Your task to perform on an android device: Search for Italian restaurants on Maps Image 0: 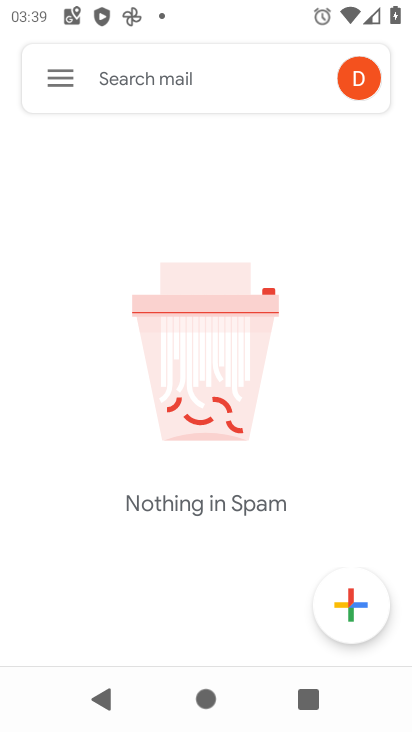
Step 0: press home button
Your task to perform on an android device: Search for Italian restaurants on Maps Image 1: 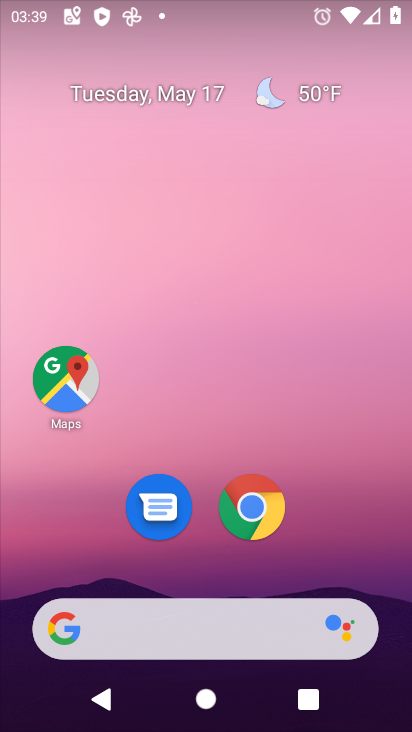
Step 1: click (68, 379)
Your task to perform on an android device: Search for Italian restaurants on Maps Image 2: 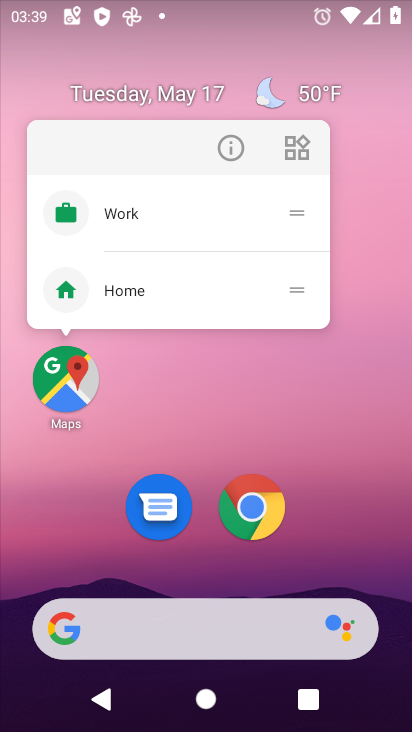
Step 2: click (62, 385)
Your task to perform on an android device: Search for Italian restaurants on Maps Image 3: 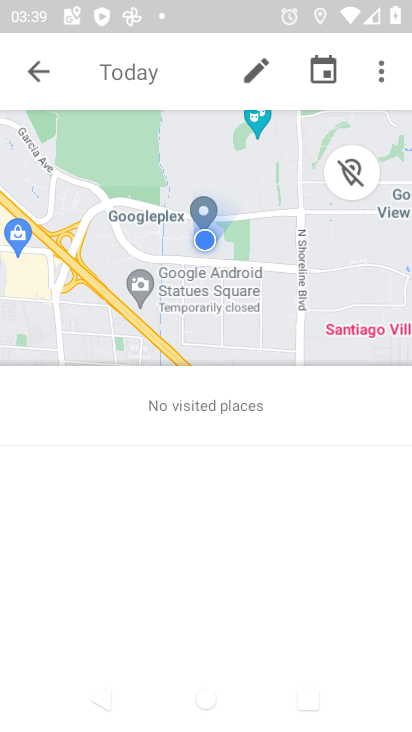
Step 3: click (39, 72)
Your task to perform on an android device: Search for Italian restaurants on Maps Image 4: 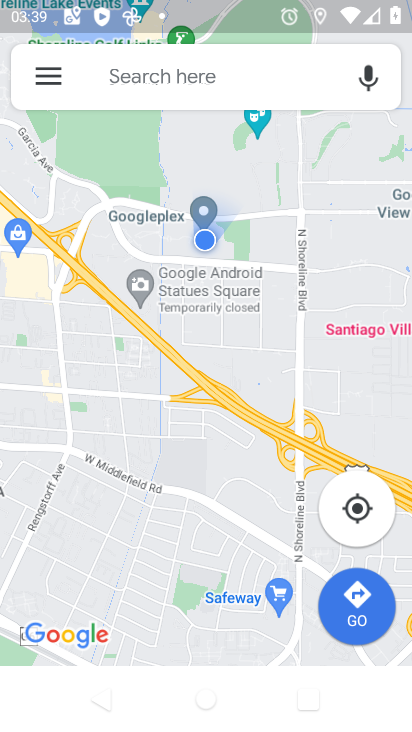
Step 4: click (44, 73)
Your task to perform on an android device: Search for Italian restaurants on Maps Image 5: 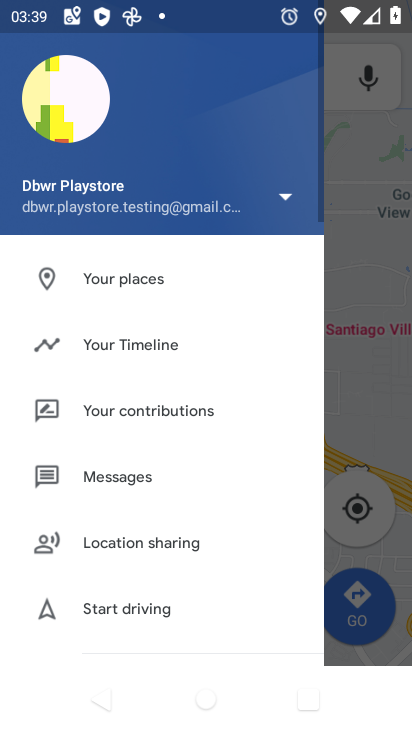
Step 5: click (358, 154)
Your task to perform on an android device: Search for Italian restaurants on Maps Image 6: 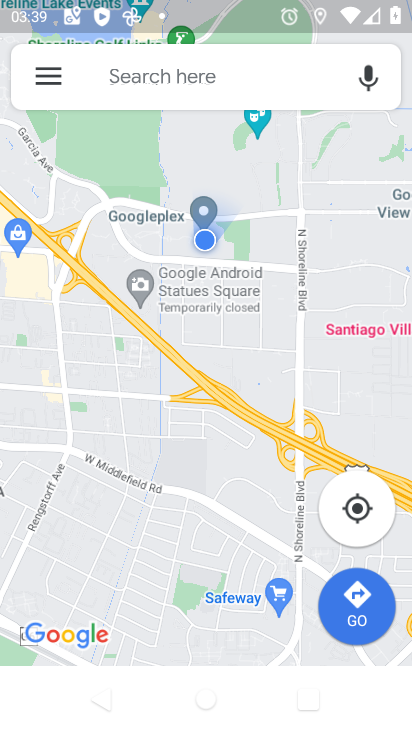
Step 6: click (281, 81)
Your task to perform on an android device: Search for Italian restaurants on Maps Image 7: 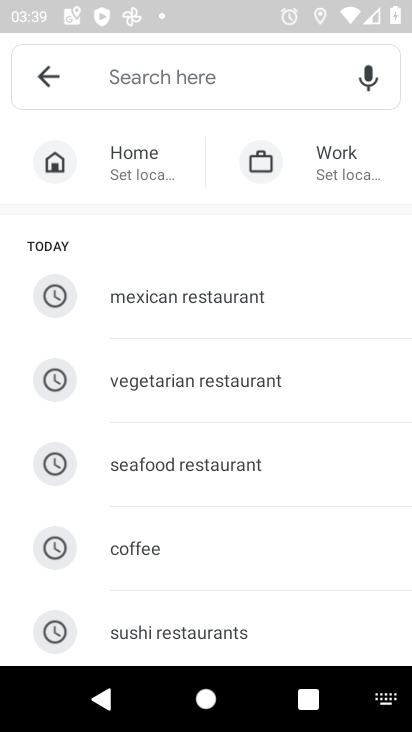
Step 7: drag from (205, 554) to (203, 312)
Your task to perform on an android device: Search for Italian restaurants on Maps Image 8: 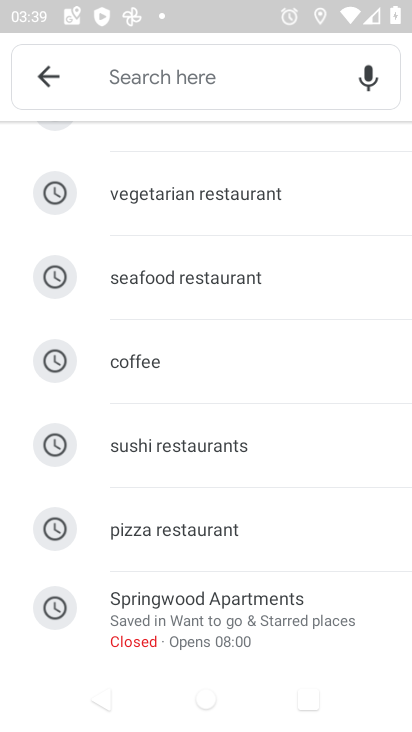
Step 8: click (176, 82)
Your task to perform on an android device: Search for Italian restaurants on Maps Image 9: 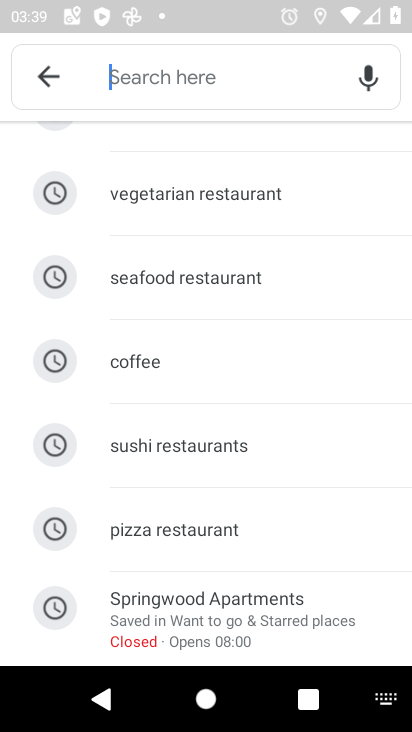
Step 9: type "italian restaurants"
Your task to perform on an android device: Search for Italian restaurants on Maps Image 10: 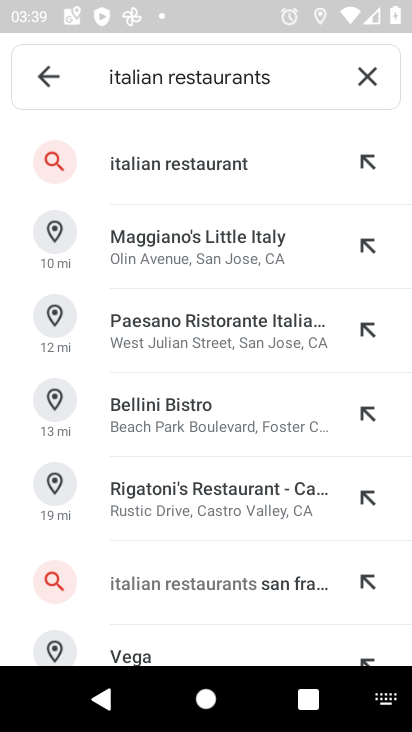
Step 10: click (183, 150)
Your task to perform on an android device: Search for Italian restaurants on Maps Image 11: 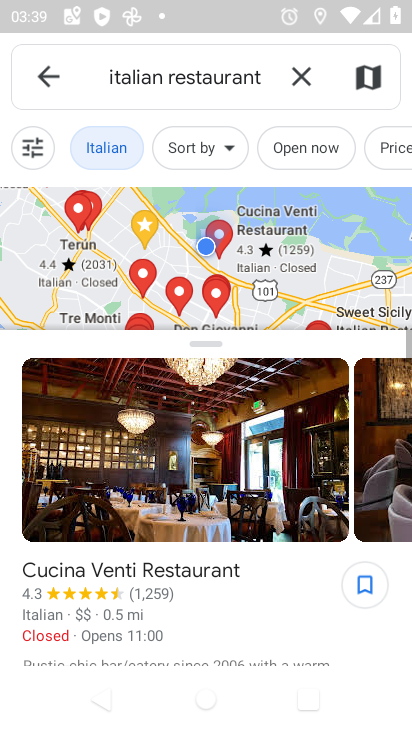
Step 11: task complete